Your task to perform on an android device: open app "Skype" (install if not already installed) Image 0: 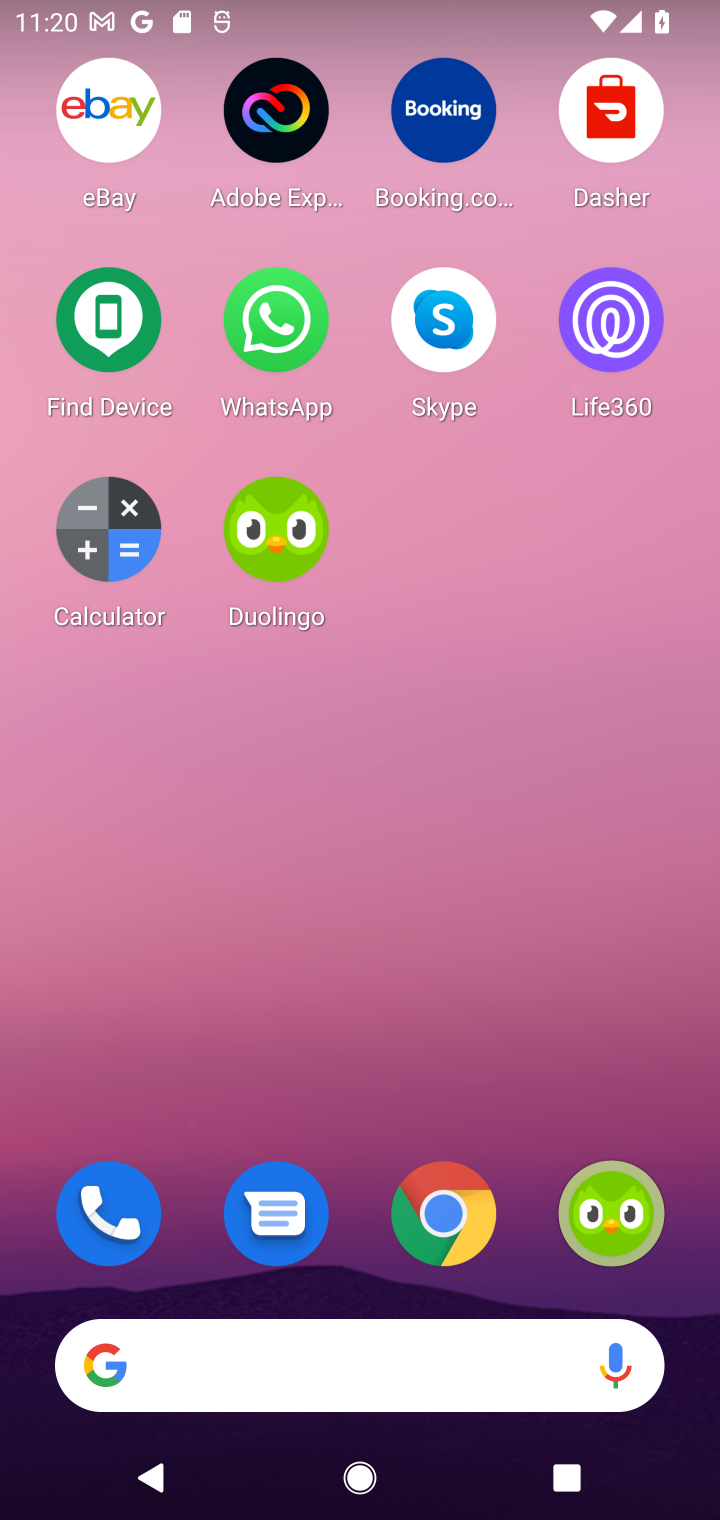
Step 0: drag from (295, 1043) to (398, 70)
Your task to perform on an android device: open app "Skype" (install if not already installed) Image 1: 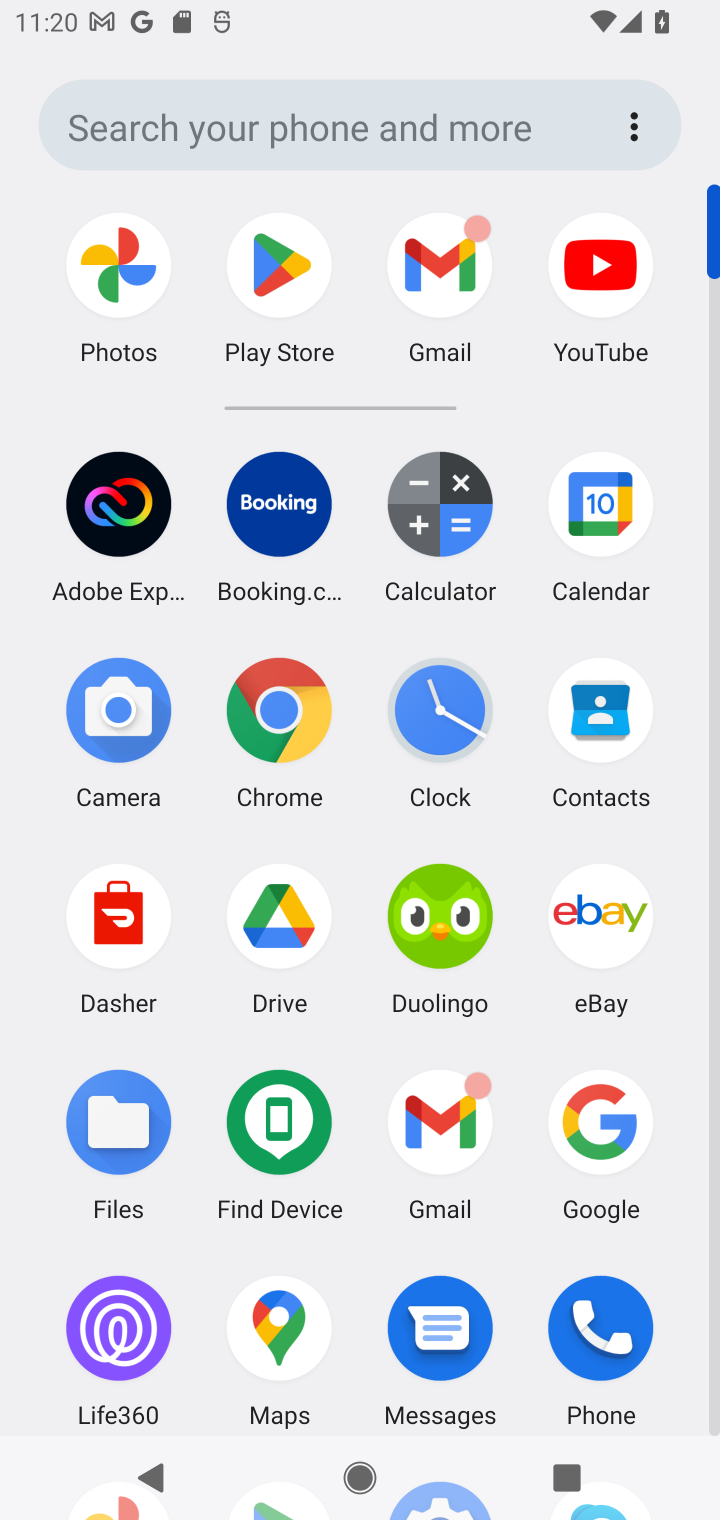
Step 1: click (285, 274)
Your task to perform on an android device: open app "Skype" (install if not already installed) Image 2: 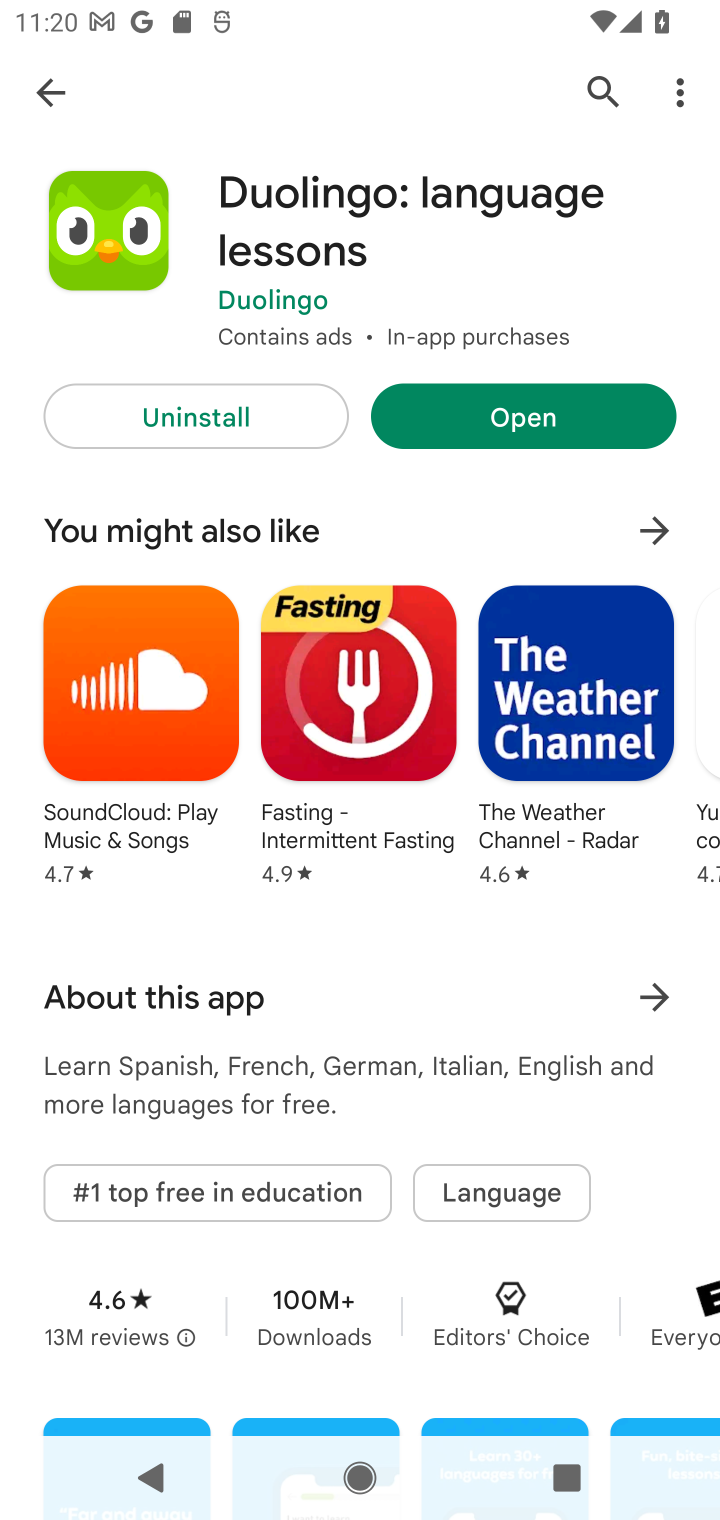
Step 2: press back button
Your task to perform on an android device: open app "Skype" (install if not already installed) Image 3: 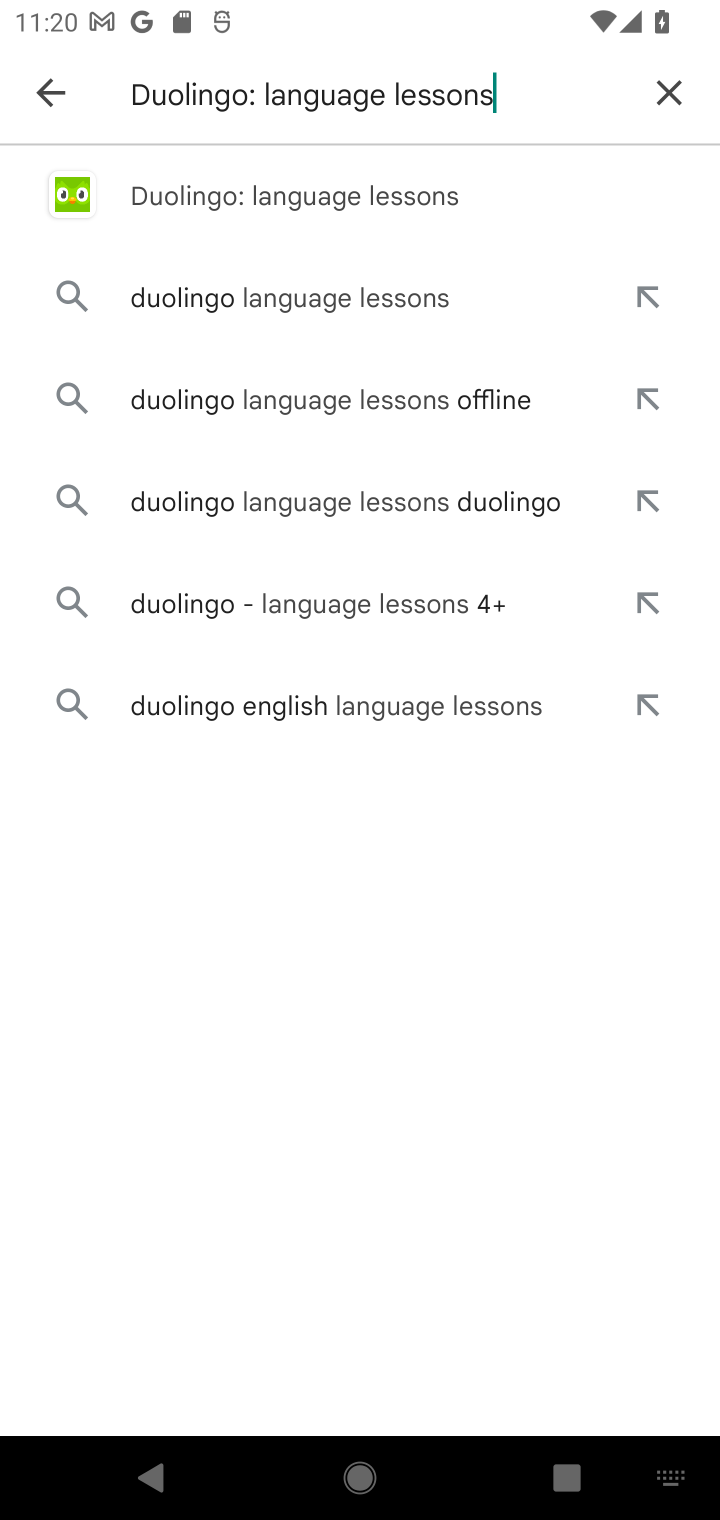
Step 3: press back button
Your task to perform on an android device: open app "Skype" (install if not already installed) Image 4: 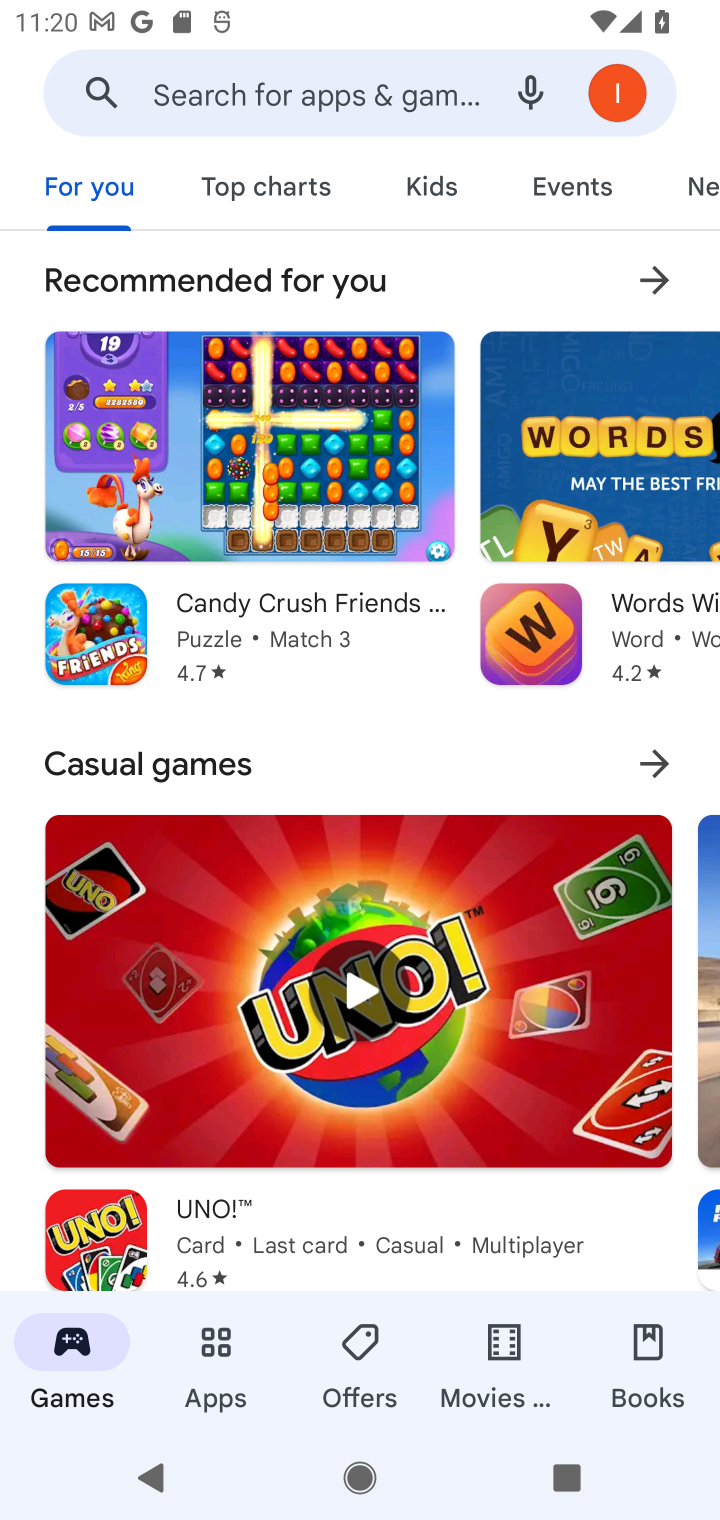
Step 4: click (415, 94)
Your task to perform on an android device: open app "Skype" (install if not already installed) Image 5: 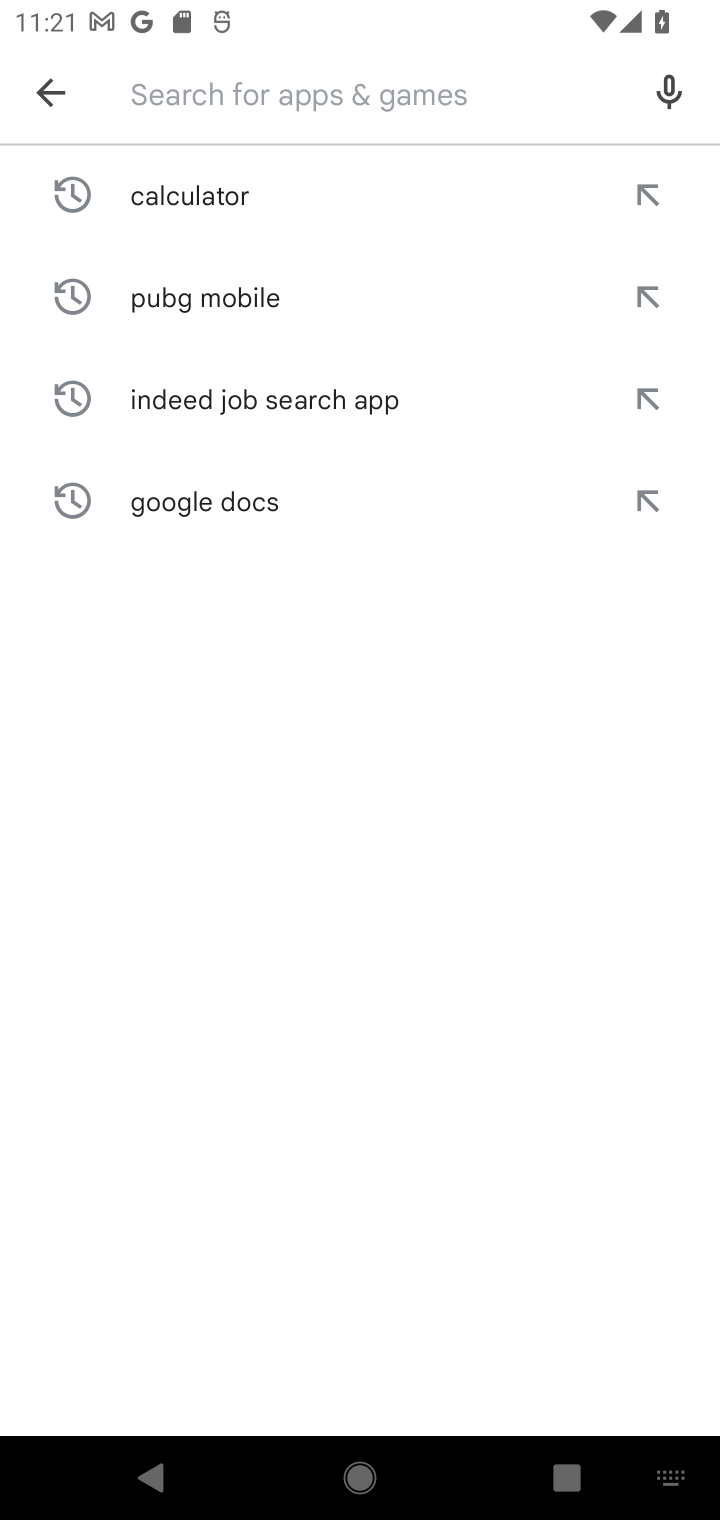
Step 5: type "Skype"
Your task to perform on an android device: open app "Skype" (install if not already installed) Image 6: 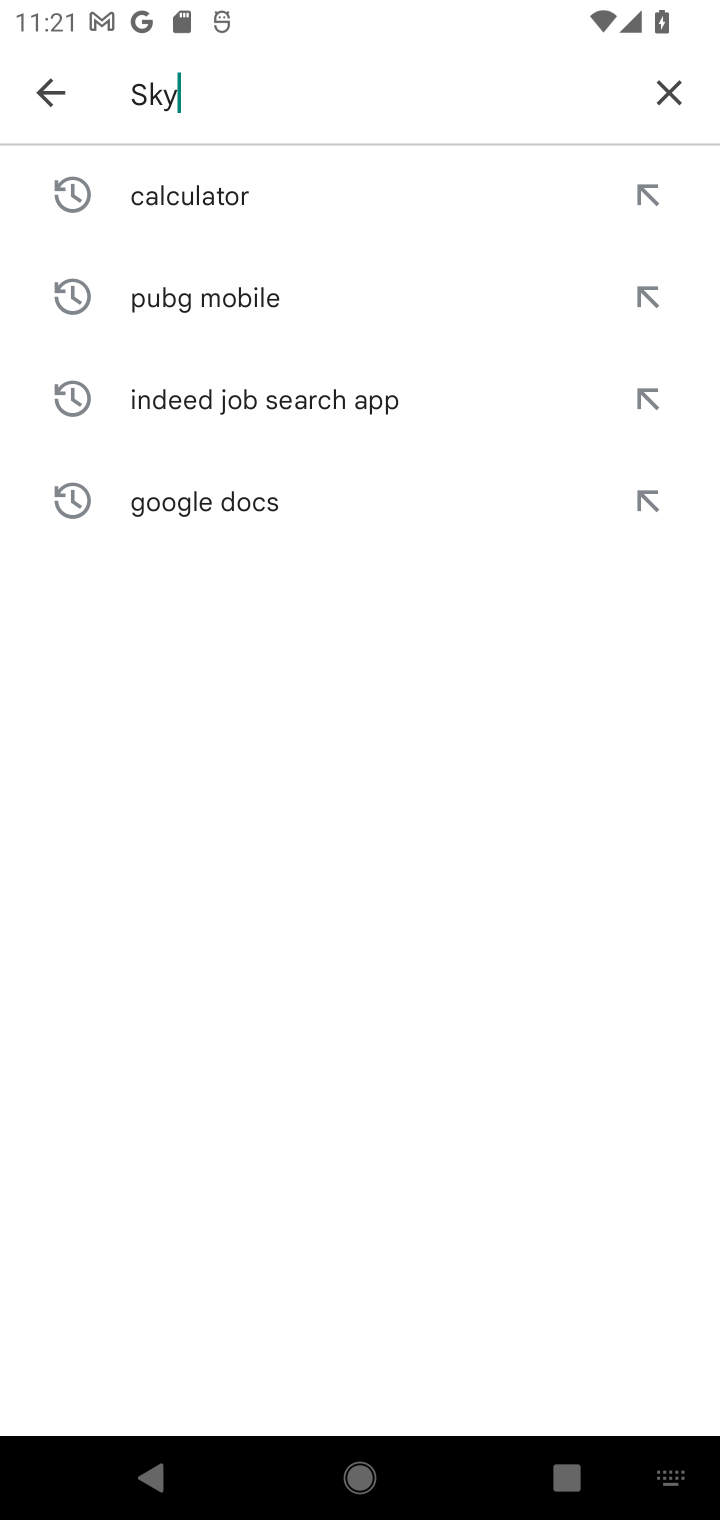
Step 6: type ""
Your task to perform on an android device: open app "Skype" (install if not already installed) Image 7: 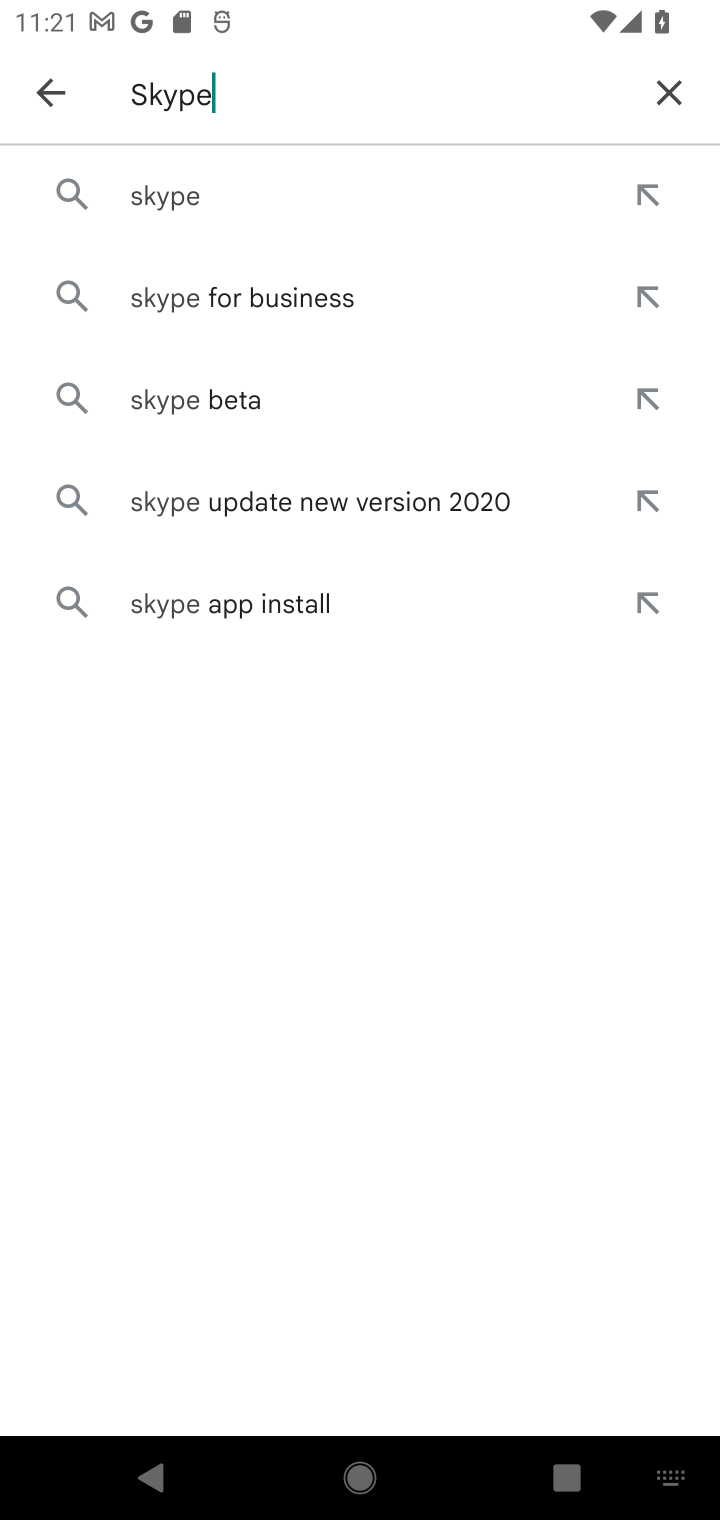
Step 7: click (153, 193)
Your task to perform on an android device: open app "Skype" (install if not already installed) Image 8: 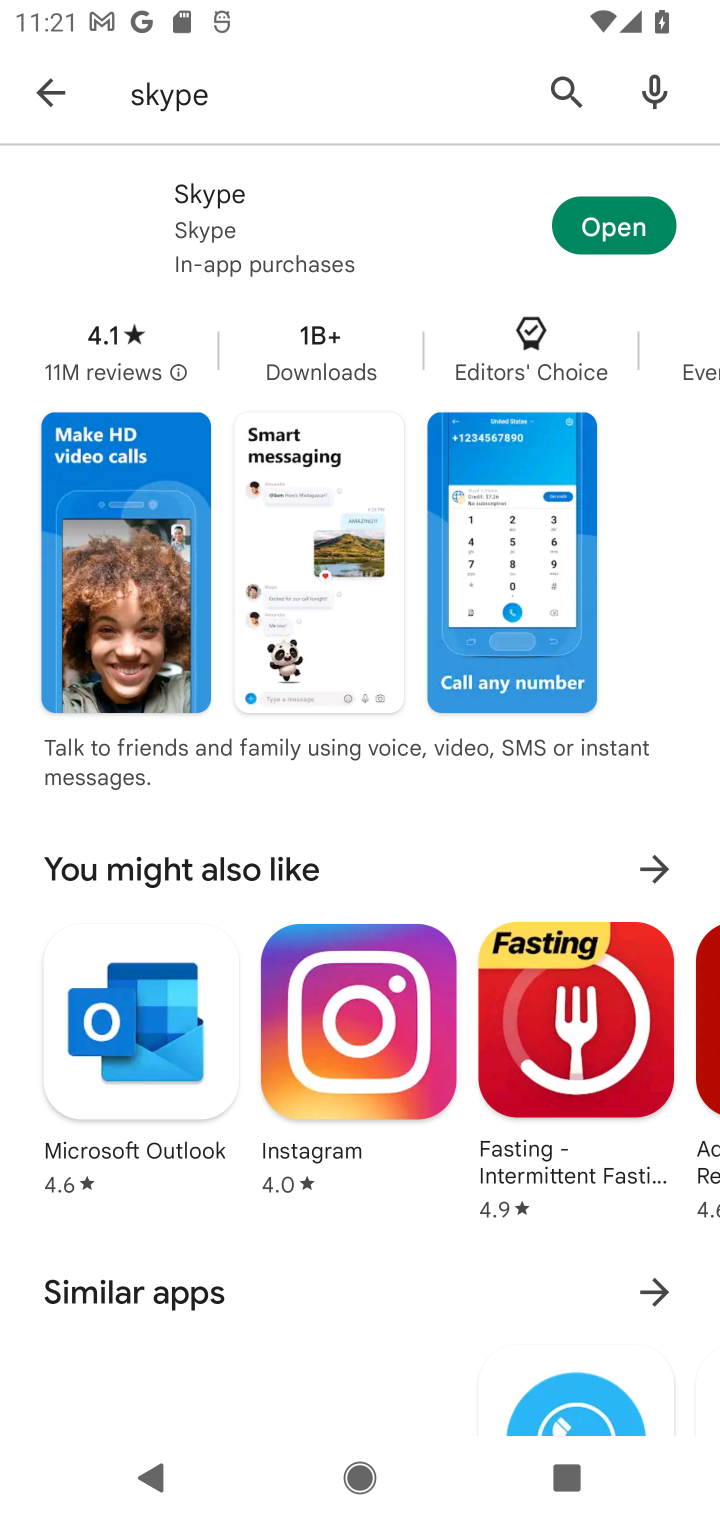
Step 8: click (602, 230)
Your task to perform on an android device: open app "Skype" (install if not already installed) Image 9: 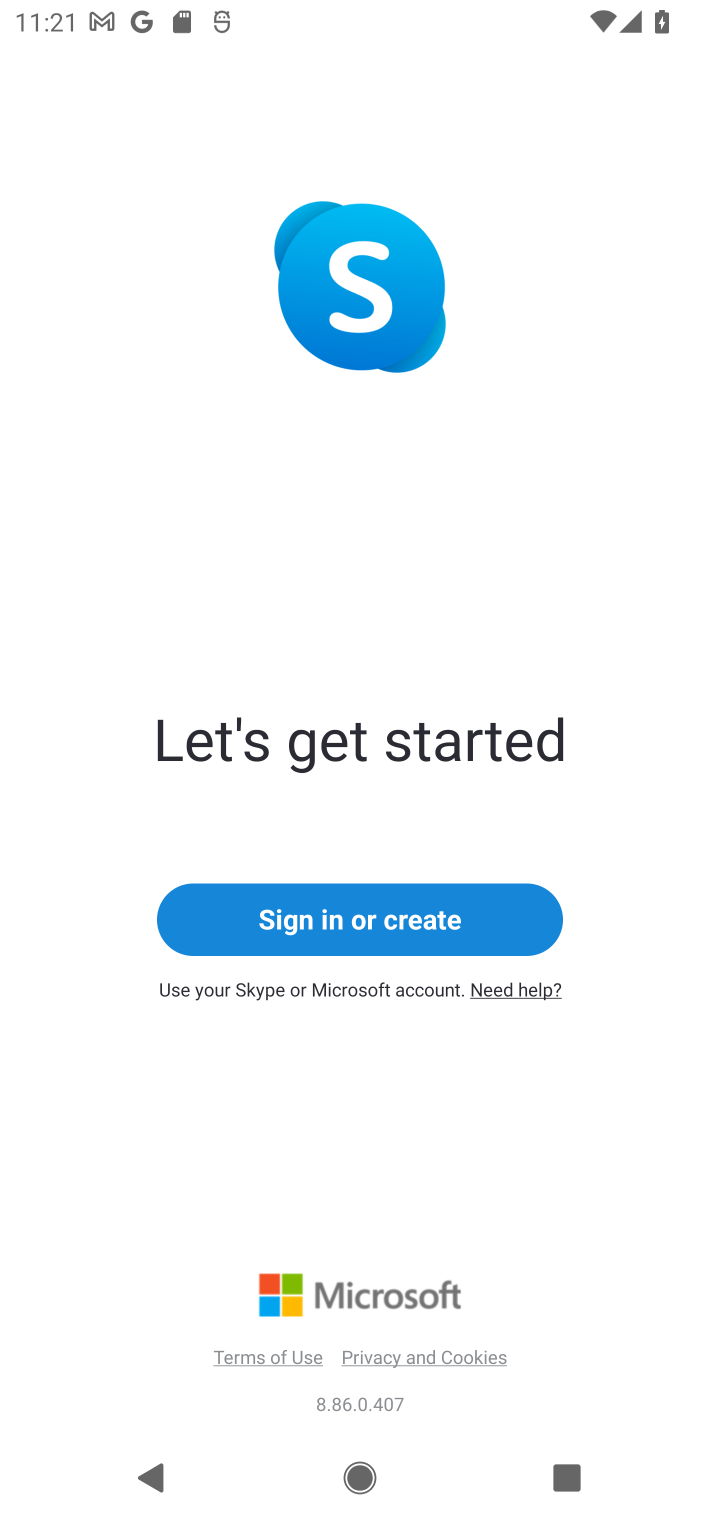
Step 9: task complete